Your task to perform on an android device: Open Google Chrome and click the shortcut for Amazon.com Image 0: 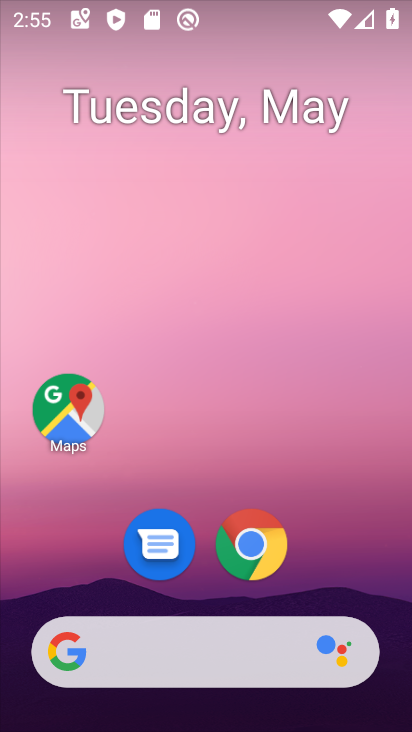
Step 0: click (254, 543)
Your task to perform on an android device: Open Google Chrome and click the shortcut for Amazon.com Image 1: 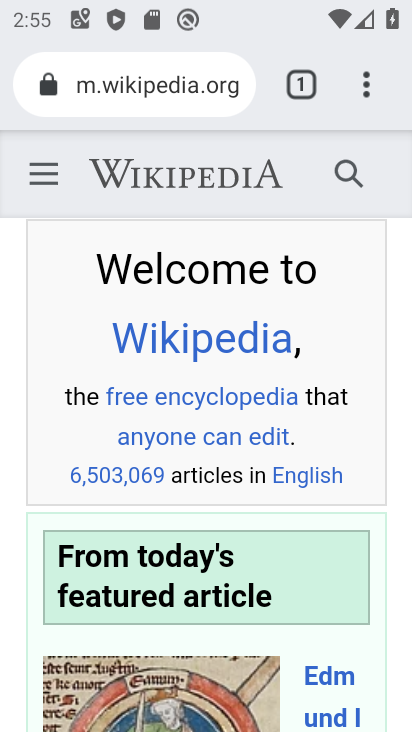
Step 1: click (196, 85)
Your task to perform on an android device: Open Google Chrome and click the shortcut for Amazon.com Image 2: 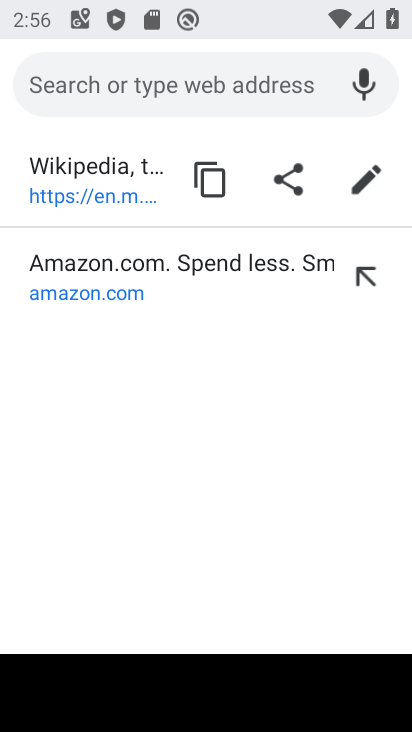
Step 2: type "Amazon.com"
Your task to perform on an android device: Open Google Chrome and click the shortcut for Amazon.com Image 3: 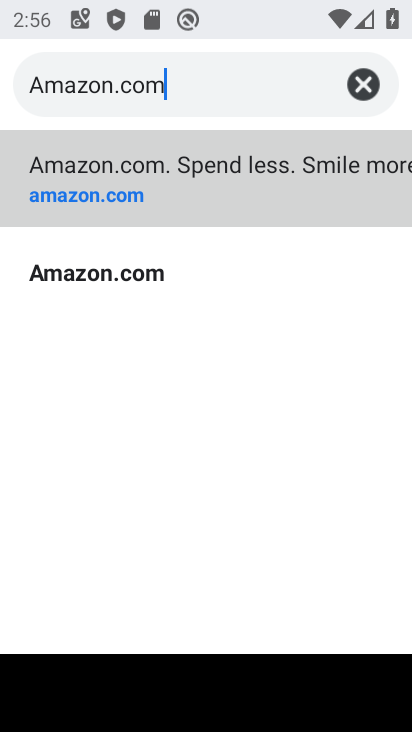
Step 3: click (220, 185)
Your task to perform on an android device: Open Google Chrome and click the shortcut for Amazon.com Image 4: 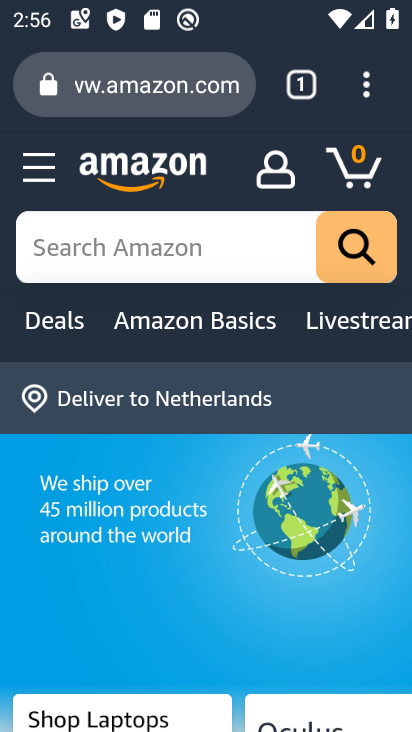
Step 4: click (365, 85)
Your task to perform on an android device: Open Google Chrome and click the shortcut for Amazon.com Image 5: 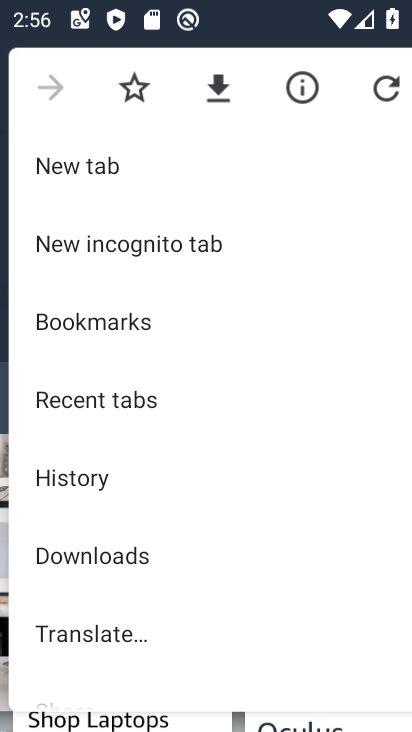
Step 5: drag from (127, 573) to (174, 490)
Your task to perform on an android device: Open Google Chrome and click the shortcut for Amazon.com Image 6: 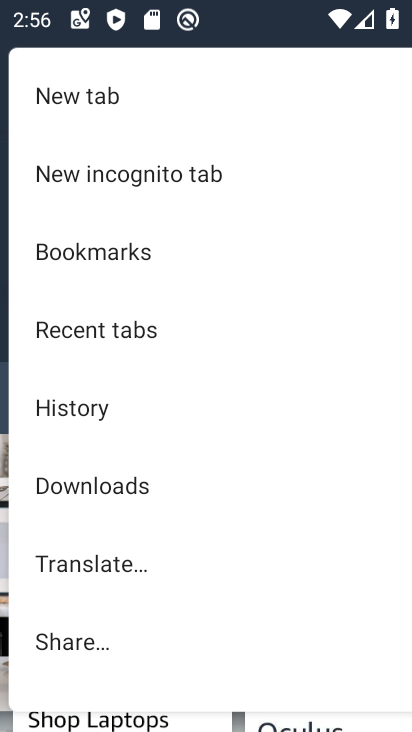
Step 6: drag from (149, 603) to (184, 465)
Your task to perform on an android device: Open Google Chrome and click the shortcut for Amazon.com Image 7: 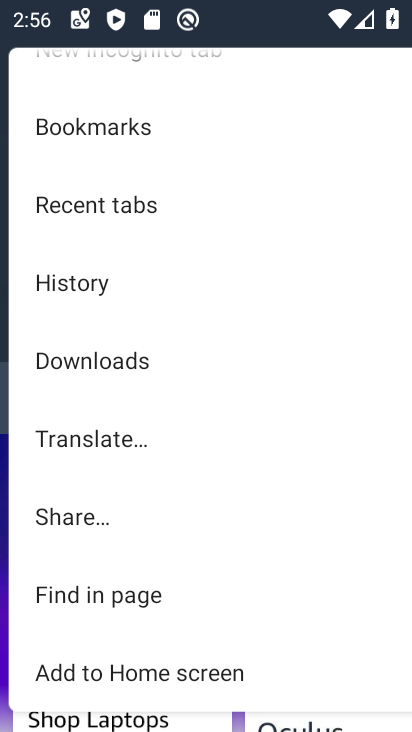
Step 7: drag from (100, 557) to (167, 449)
Your task to perform on an android device: Open Google Chrome and click the shortcut for Amazon.com Image 8: 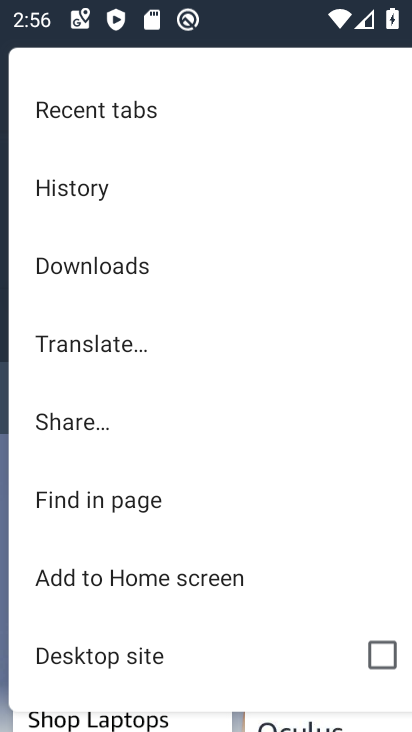
Step 8: click (120, 579)
Your task to perform on an android device: Open Google Chrome and click the shortcut for Amazon.com Image 9: 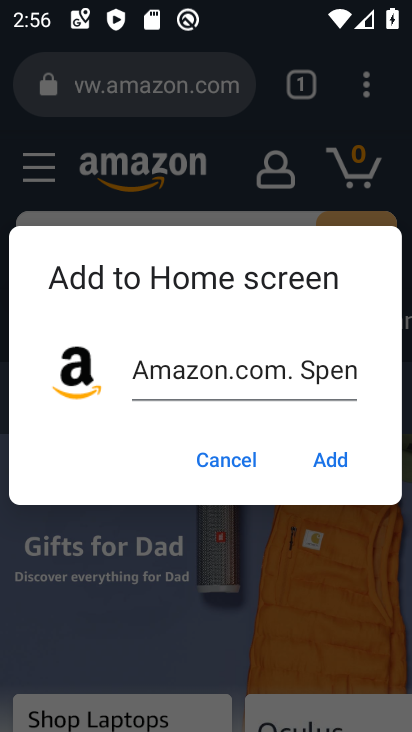
Step 9: click (318, 455)
Your task to perform on an android device: Open Google Chrome and click the shortcut for Amazon.com Image 10: 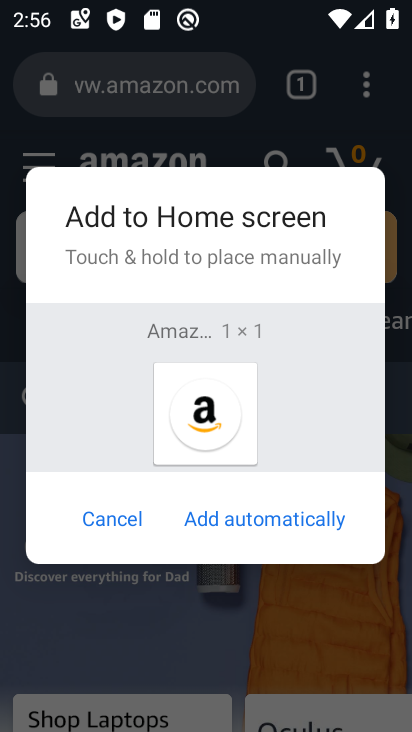
Step 10: click (298, 524)
Your task to perform on an android device: Open Google Chrome and click the shortcut for Amazon.com Image 11: 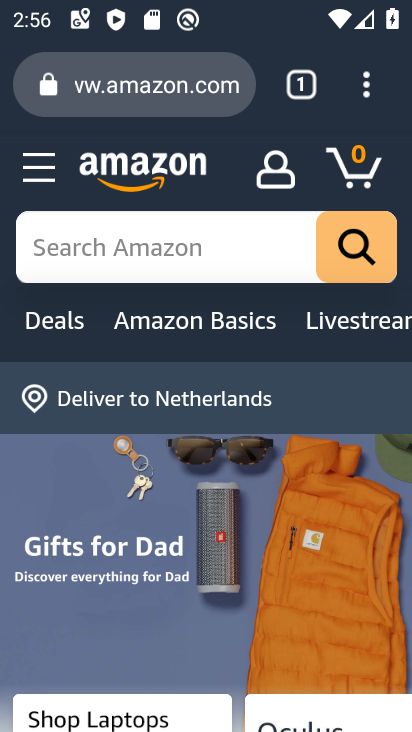
Step 11: task complete